Your task to perform on an android device: Show me productivity apps on the Play Store Image 0: 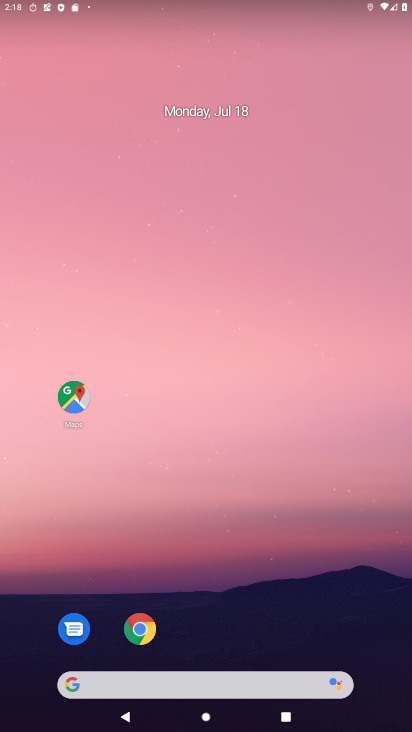
Step 0: drag from (200, 643) to (212, 142)
Your task to perform on an android device: Show me productivity apps on the Play Store Image 1: 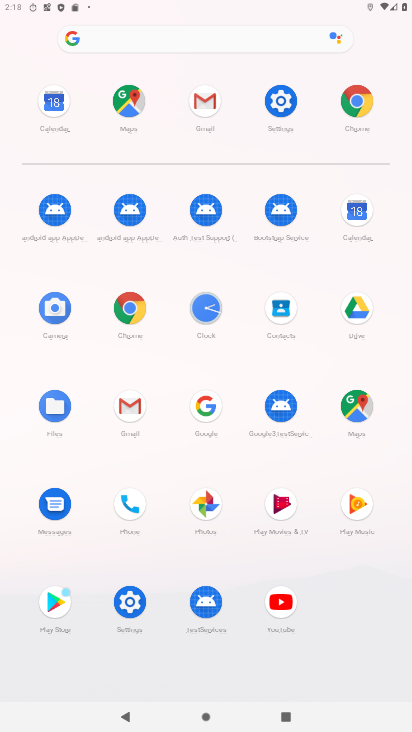
Step 1: click (52, 602)
Your task to perform on an android device: Show me productivity apps on the Play Store Image 2: 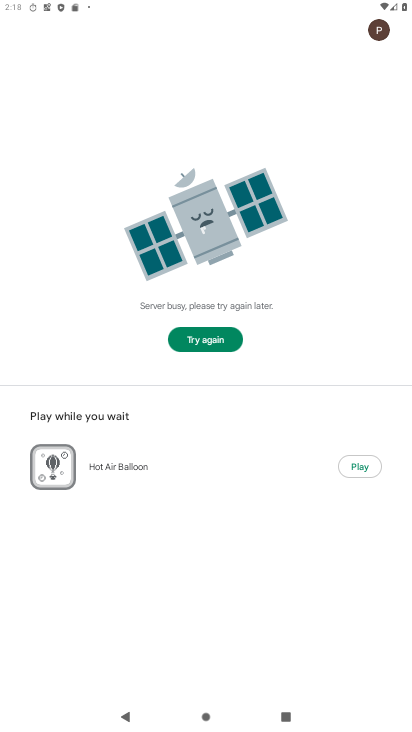
Step 2: click (196, 339)
Your task to perform on an android device: Show me productivity apps on the Play Store Image 3: 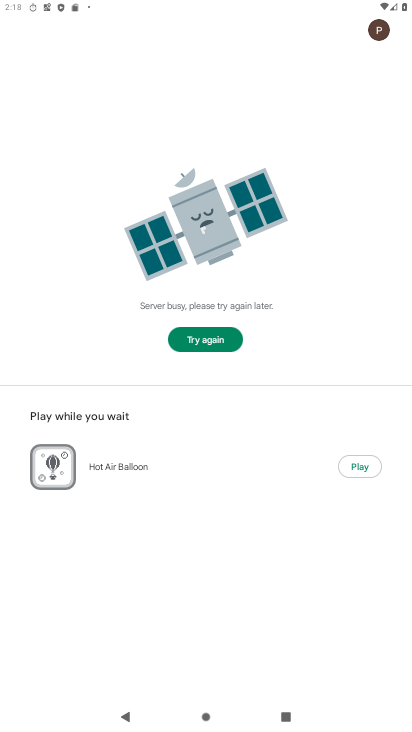
Step 3: click (199, 333)
Your task to perform on an android device: Show me productivity apps on the Play Store Image 4: 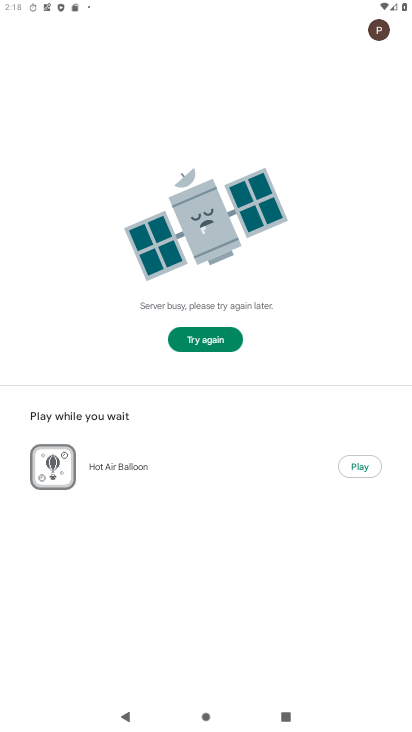
Step 4: task complete